Your task to perform on an android device: star an email in the gmail app Image 0: 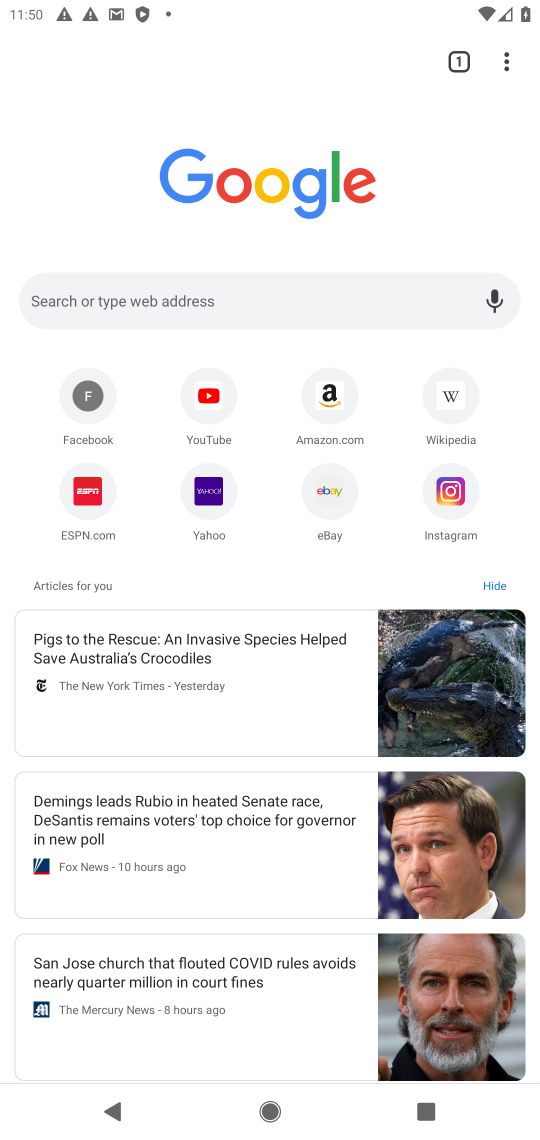
Step 0: press home button
Your task to perform on an android device: star an email in the gmail app Image 1: 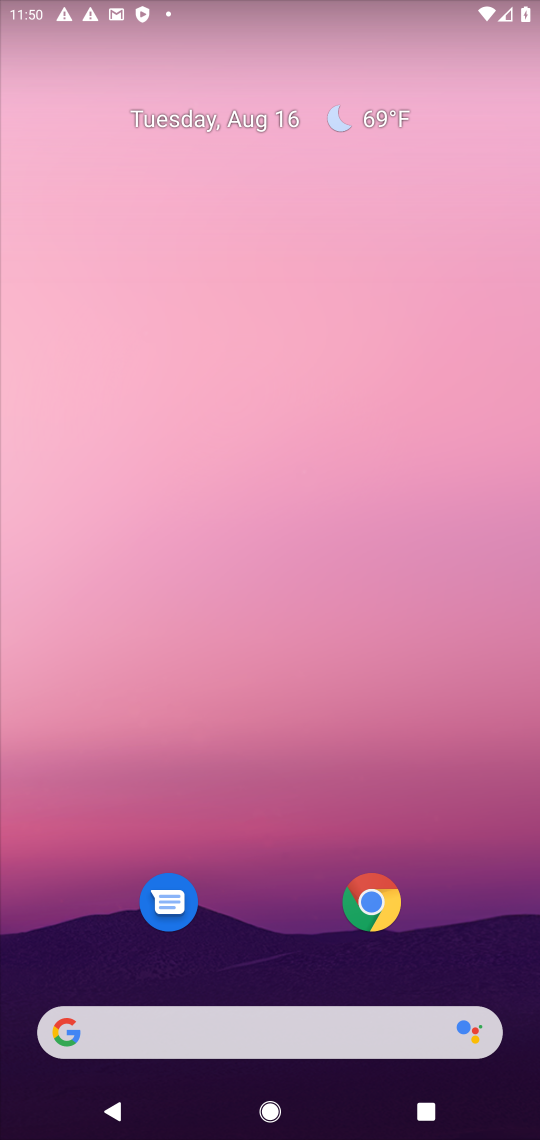
Step 1: drag from (271, 955) to (339, 117)
Your task to perform on an android device: star an email in the gmail app Image 2: 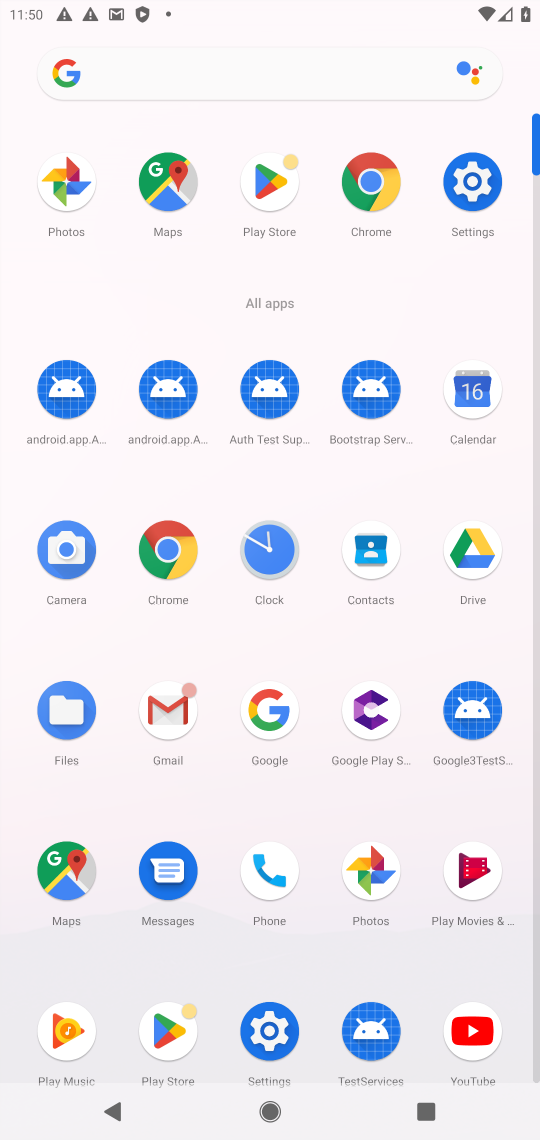
Step 2: click (156, 710)
Your task to perform on an android device: star an email in the gmail app Image 3: 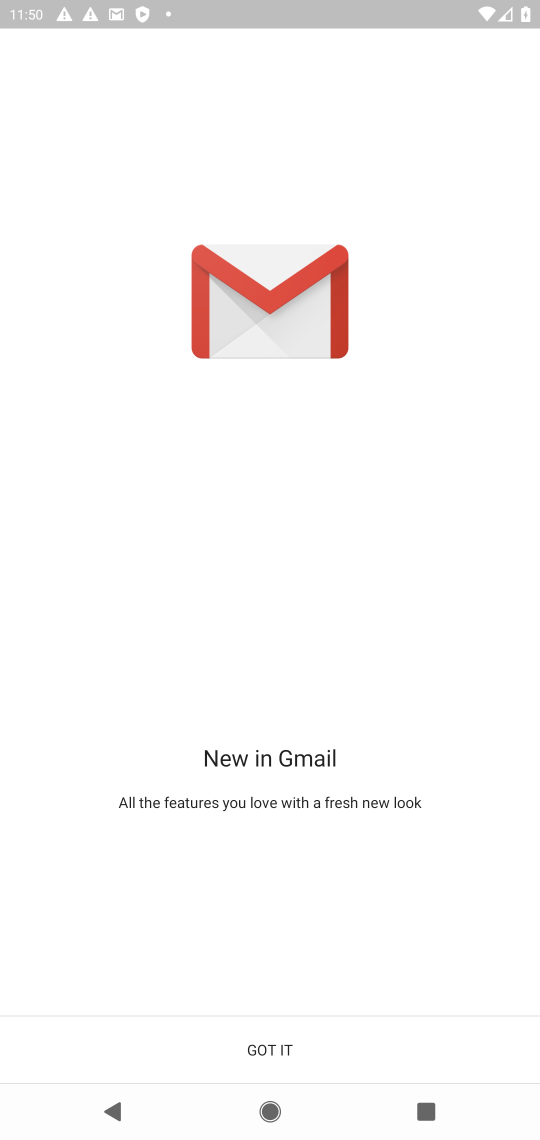
Step 3: click (262, 1043)
Your task to perform on an android device: star an email in the gmail app Image 4: 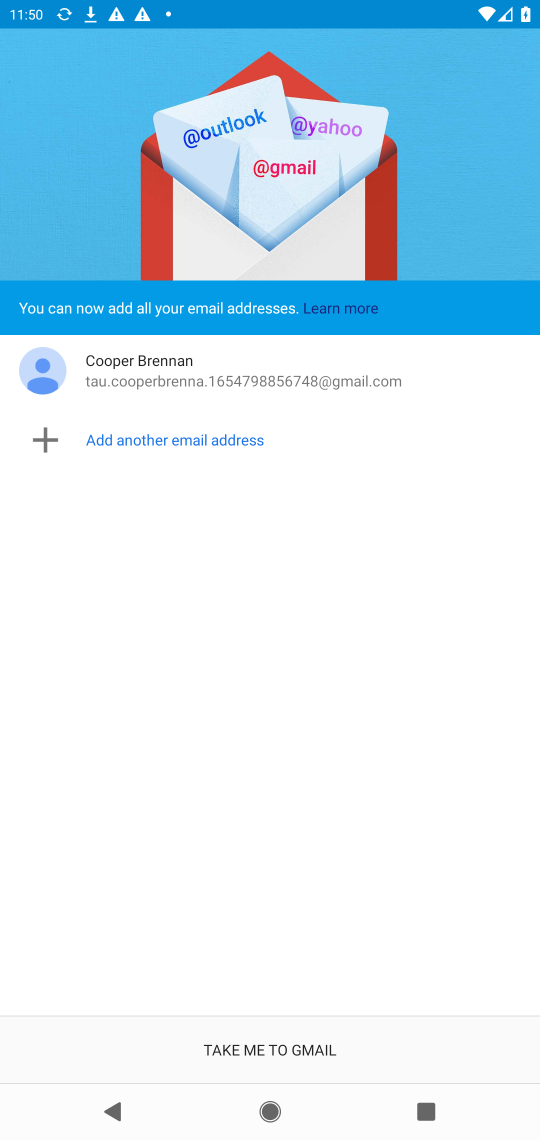
Step 4: click (256, 1051)
Your task to perform on an android device: star an email in the gmail app Image 5: 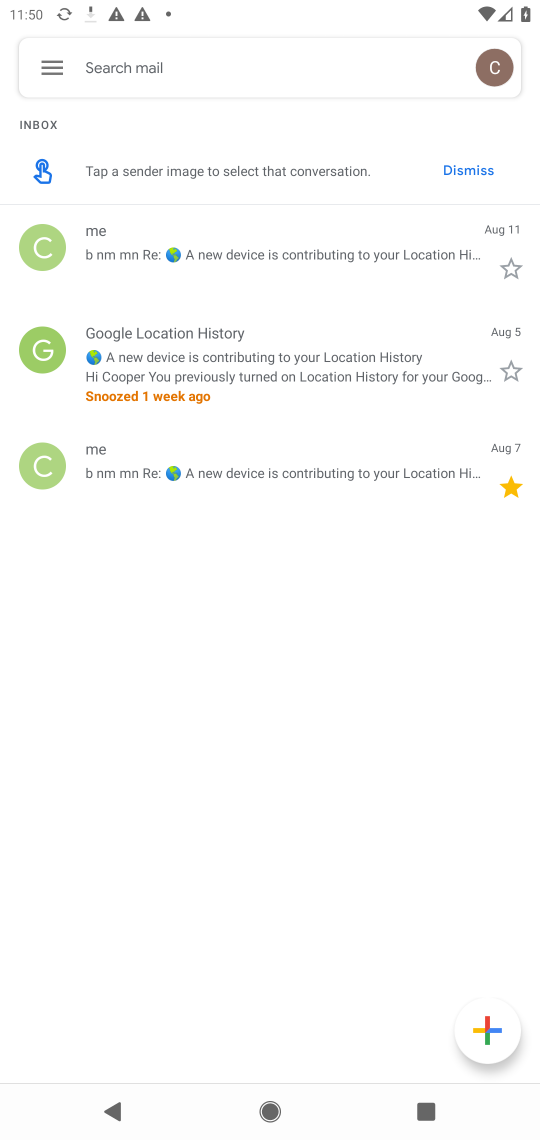
Step 5: click (510, 263)
Your task to perform on an android device: star an email in the gmail app Image 6: 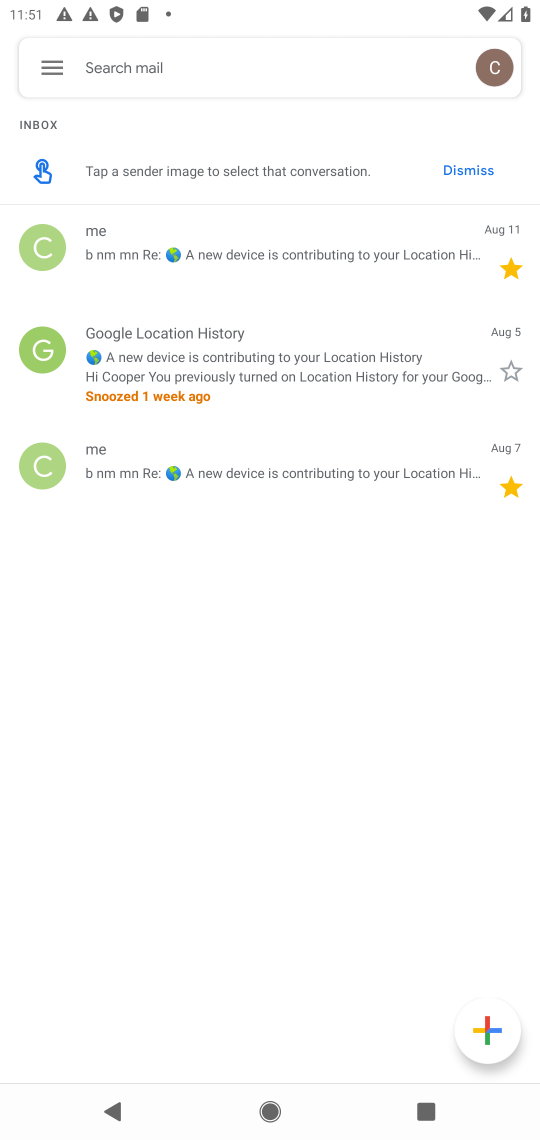
Step 6: task complete